Your task to perform on an android device: Show me popular games on the Play Store Image 0: 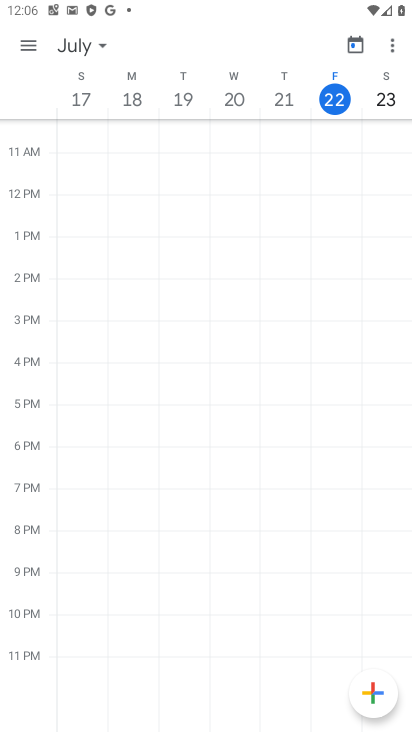
Step 0: press home button
Your task to perform on an android device: Show me popular games on the Play Store Image 1: 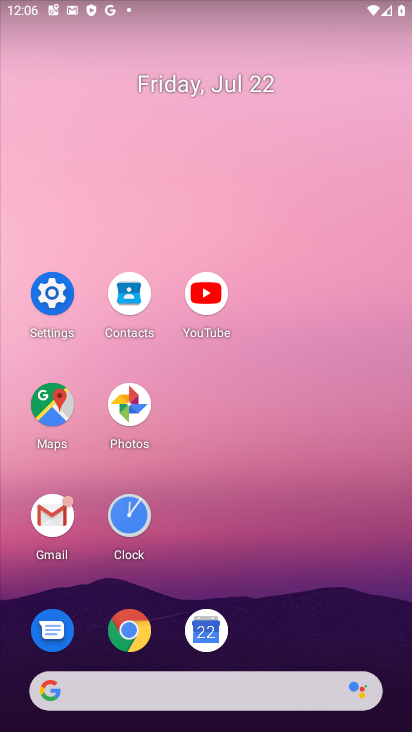
Step 1: drag from (301, 612) to (270, 27)
Your task to perform on an android device: Show me popular games on the Play Store Image 2: 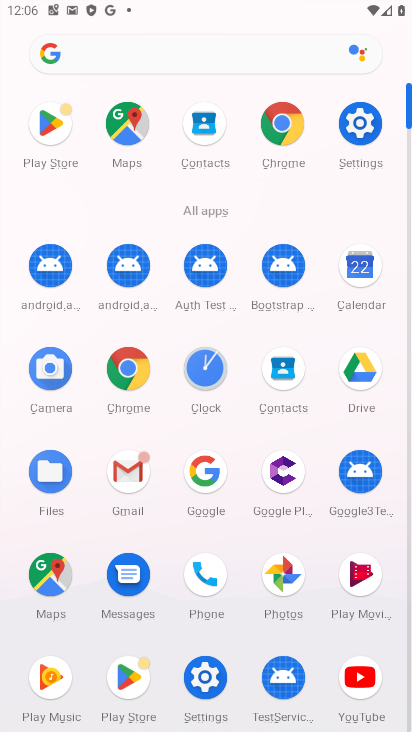
Step 2: click (135, 673)
Your task to perform on an android device: Show me popular games on the Play Store Image 3: 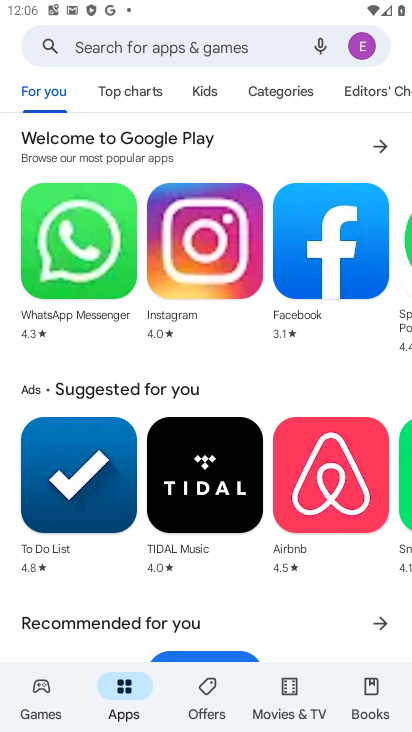
Step 3: click (42, 699)
Your task to perform on an android device: Show me popular games on the Play Store Image 4: 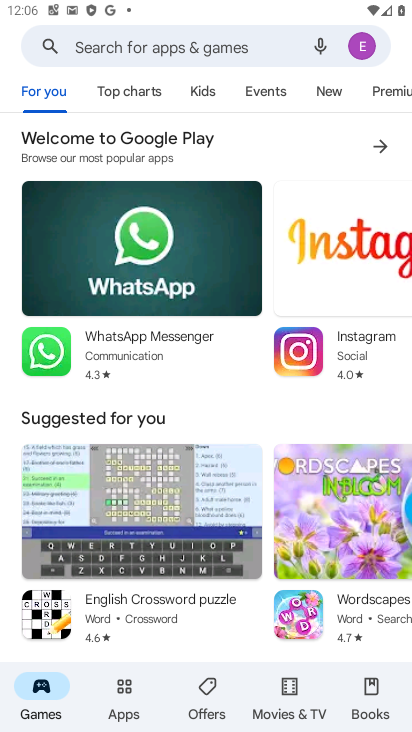
Step 4: task complete